Your task to perform on an android device: open app "NewsBreak: Local News & Alerts" (install if not already installed) and go to login screen Image 0: 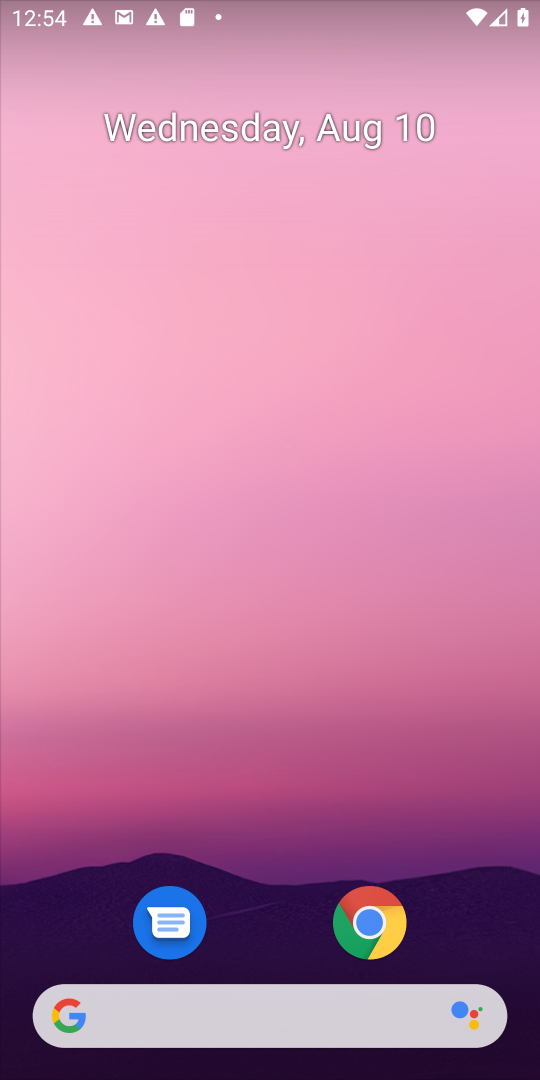
Step 0: drag from (263, 830) to (262, 207)
Your task to perform on an android device: open app "NewsBreak: Local News & Alerts" (install if not already installed) and go to login screen Image 1: 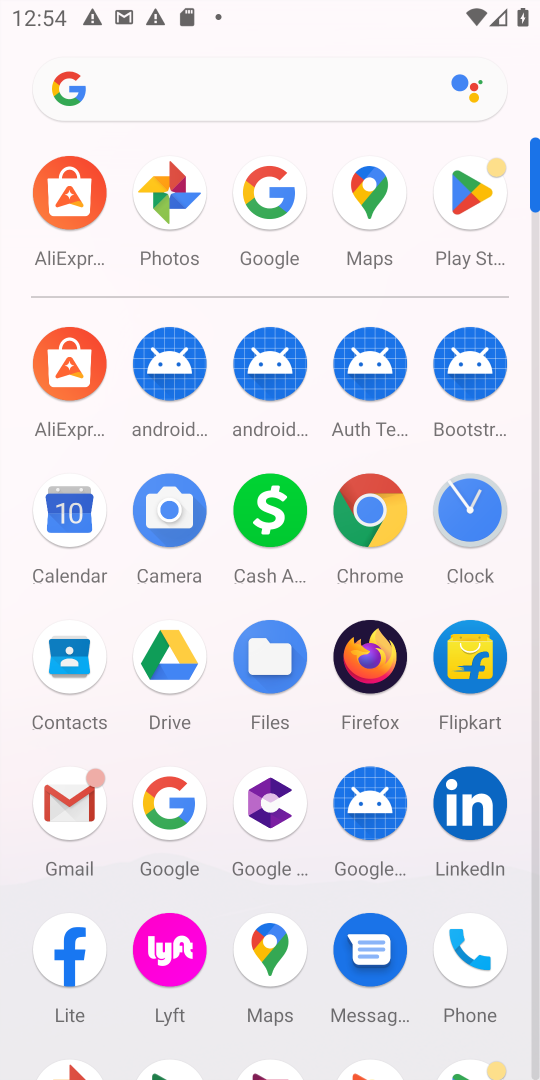
Step 1: click (470, 206)
Your task to perform on an android device: open app "NewsBreak: Local News & Alerts" (install if not already installed) and go to login screen Image 2: 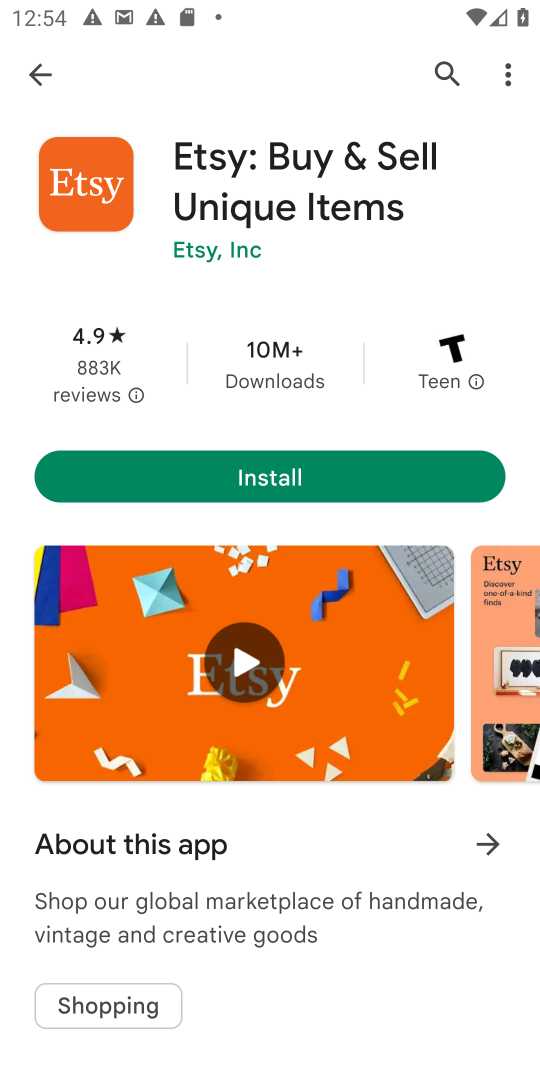
Step 2: click (38, 81)
Your task to perform on an android device: open app "NewsBreak: Local News & Alerts" (install if not already installed) and go to login screen Image 3: 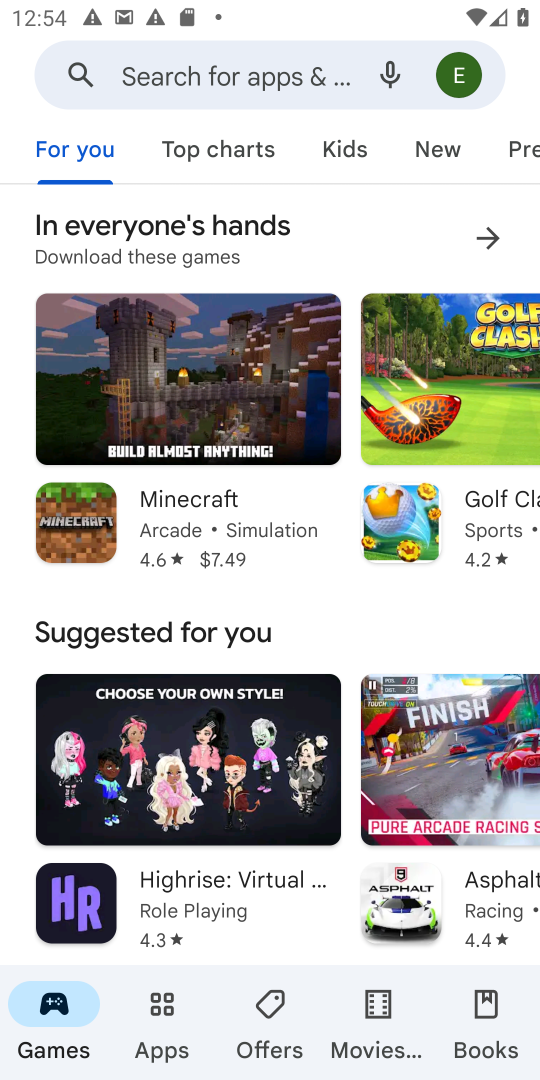
Step 3: click (247, 79)
Your task to perform on an android device: open app "NewsBreak: Local News & Alerts" (install if not already installed) and go to login screen Image 4: 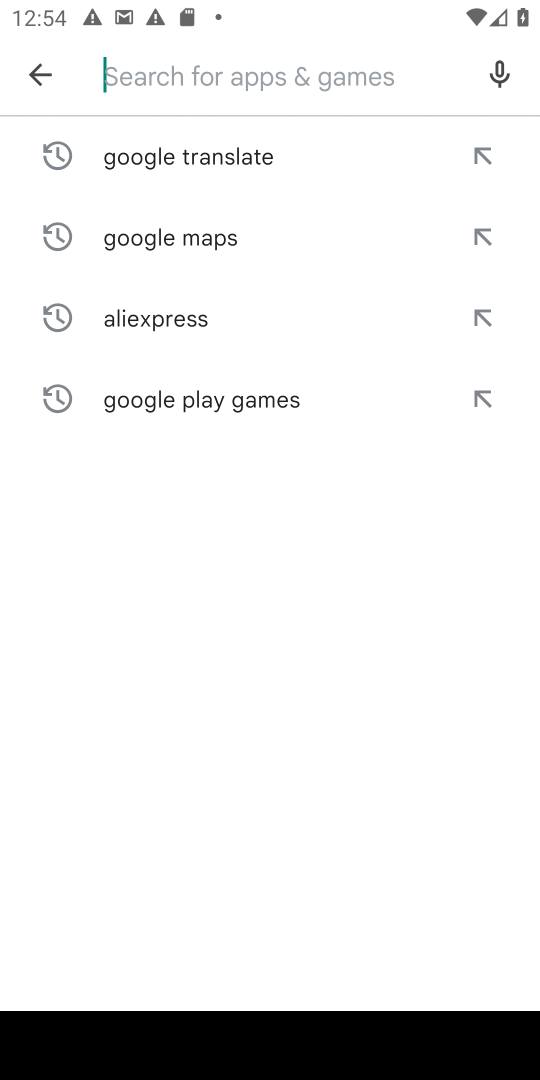
Step 4: type "NewsBreak: Local News & Alerts"
Your task to perform on an android device: open app "NewsBreak: Local News & Alerts" (install if not already installed) and go to login screen Image 5: 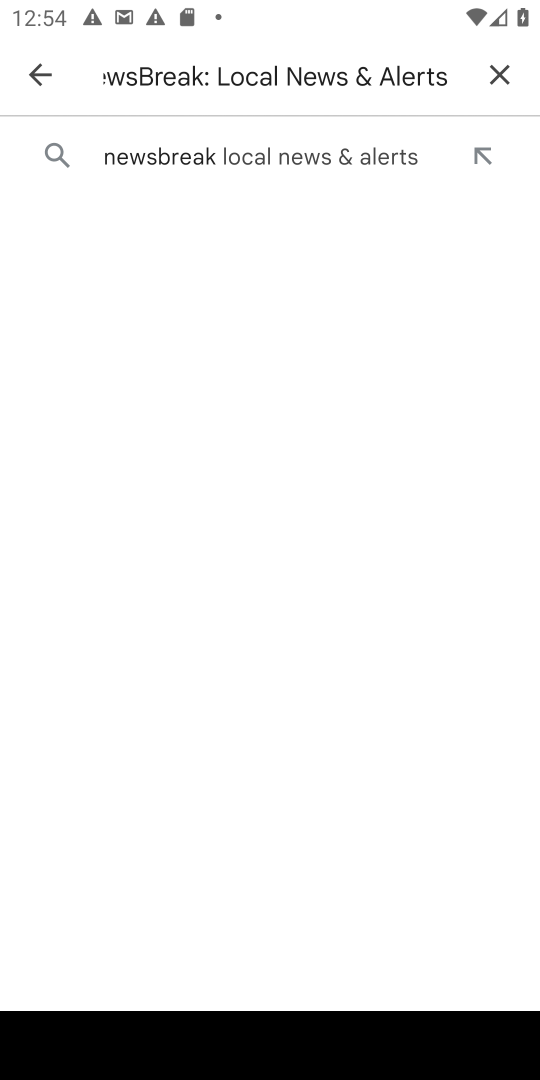
Step 5: click (316, 171)
Your task to perform on an android device: open app "NewsBreak: Local News & Alerts" (install if not already installed) and go to login screen Image 6: 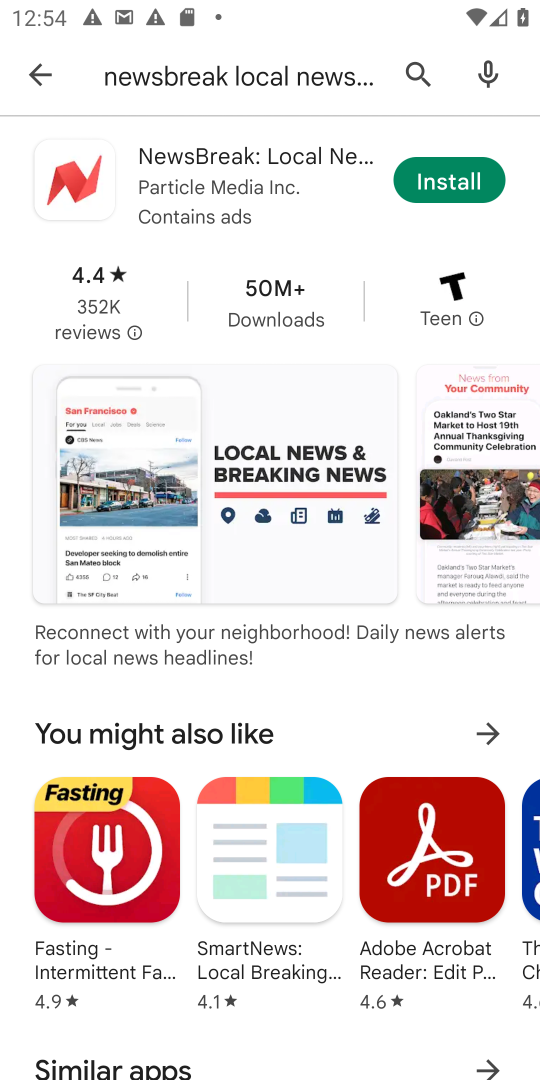
Step 6: click (446, 175)
Your task to perform on an android device: open app "NewsBreak: Local News & Alerts" (install if not already installed) and go to login screen Image 7: 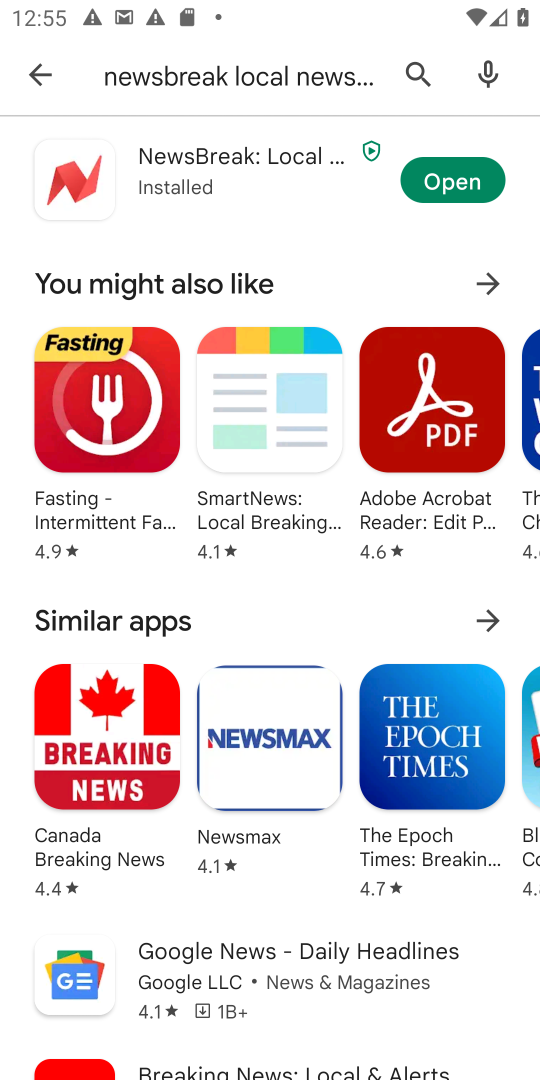
Step 7: click (433, 200)
Your task to perform on an android device: open app "NewsBreak: Local News & Alerts" (install if not already installed) and go to login screen Image 8: 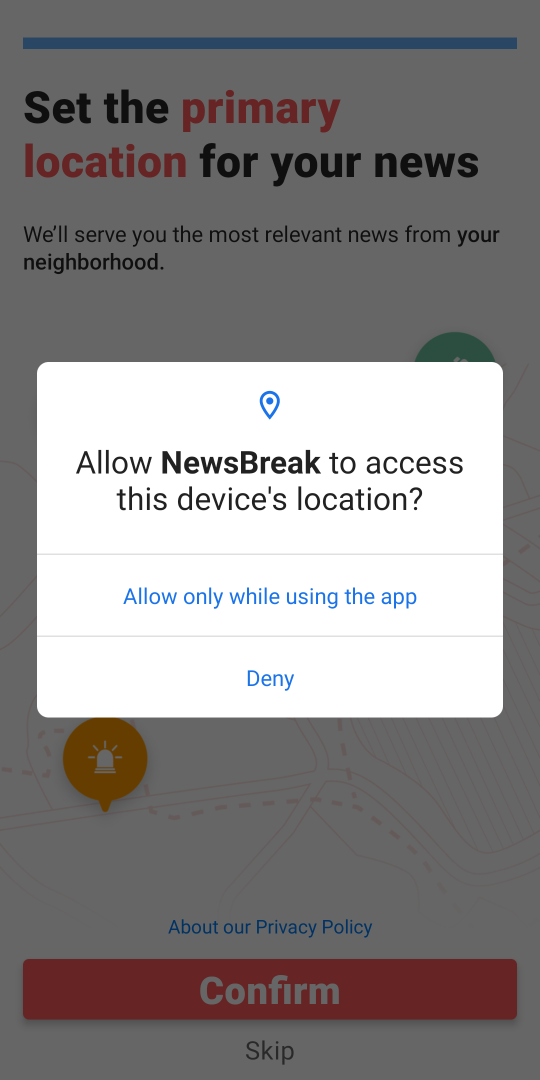
Step 8: click (243, 589)
Your task to perform on an android device: open app "NewsBreak: Local News & Alerts" (install if not already installed) and go to login screen Image 9: 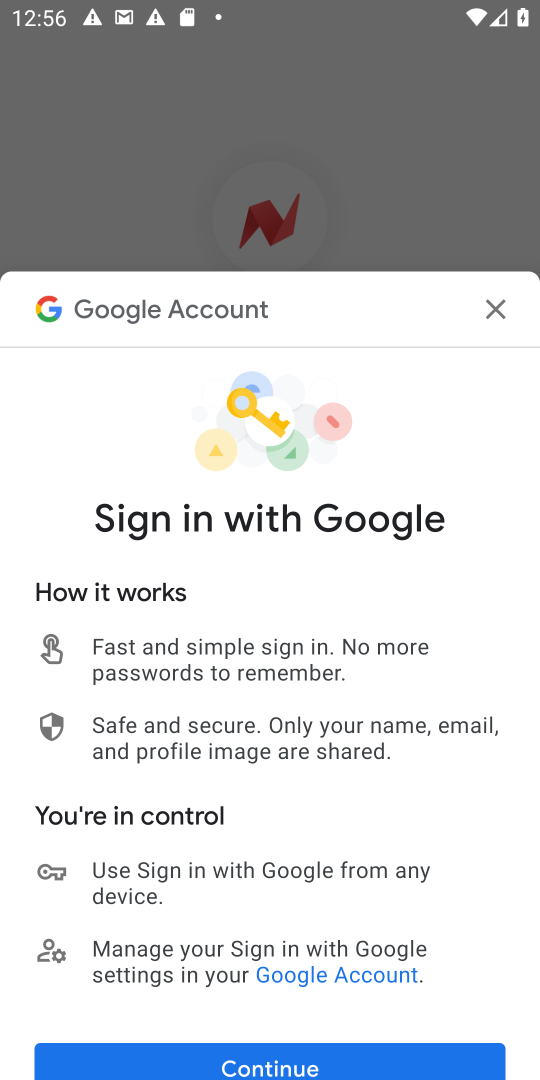
Step 9: drag from (445, 700) to (293, 241)
Your task to perform on an android device: open app "NewsBreak: Local News & Alerts" (install if not already installed) and go to login screen Image 10: 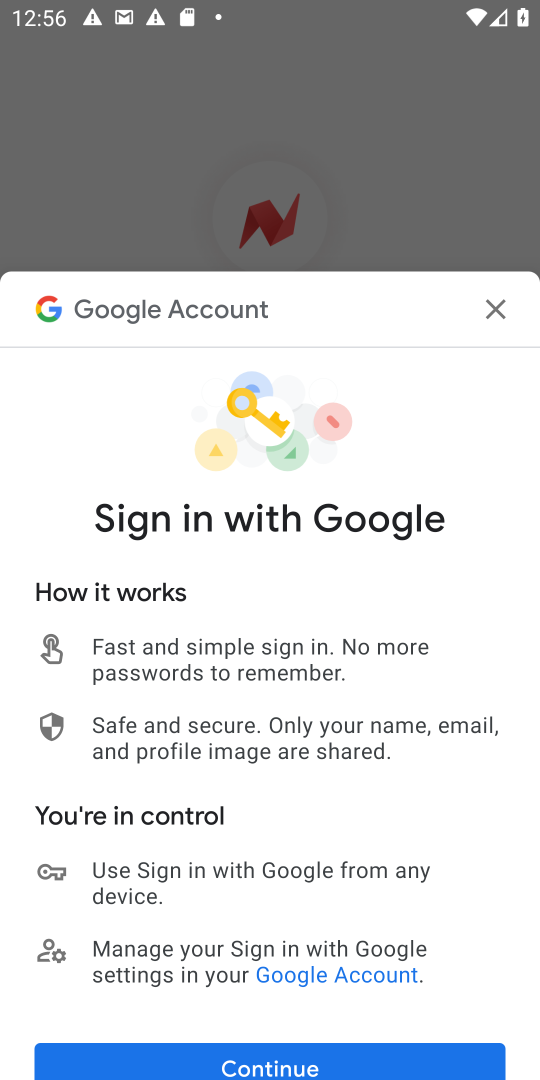
Step 10: drag from (330, 813) to (279, 285)
Your task to perform on an android device: open app "NewsBreak: Local News & Alerts" (install if not already installed) and go to login screen Image 11: 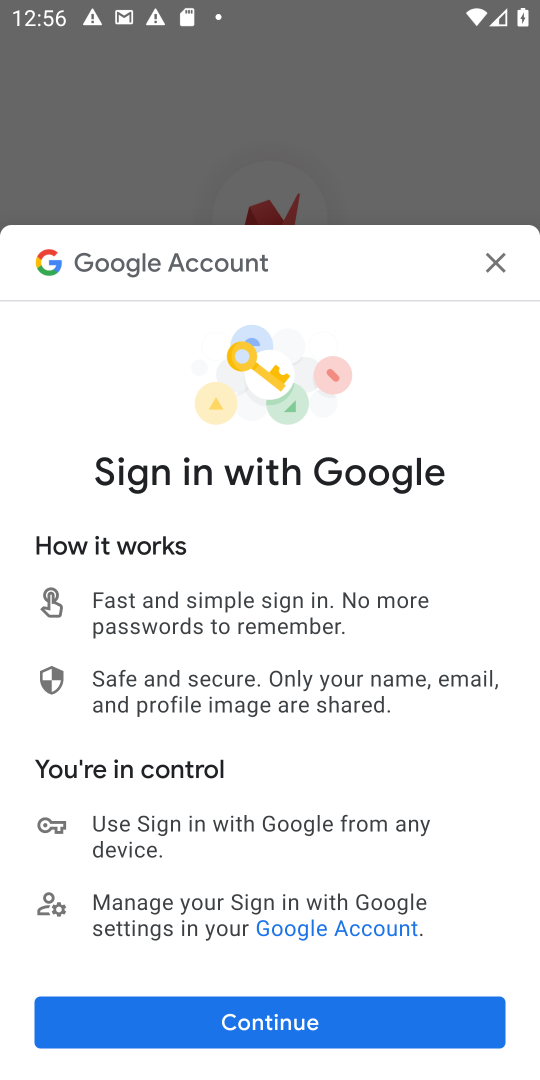
Step 11: click (265, 1020)
Your task to perform on an android device: open app "NewsBreak: Local News & Alerts" (install if not already installed) and go to login screen Image 12: 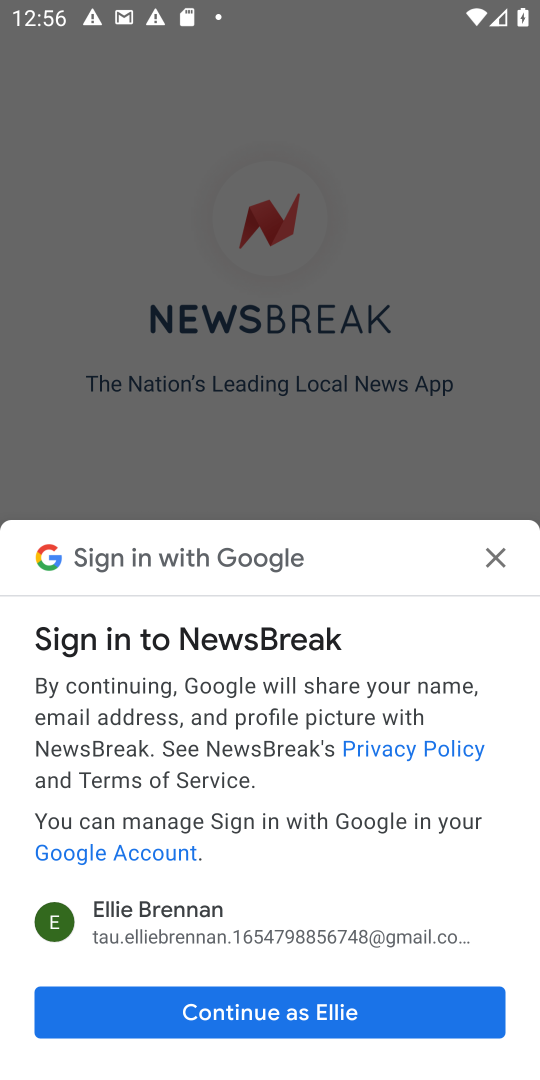
Step 12: task complete